Your task to perform on an android device: Go to Wikipedia Image 0: 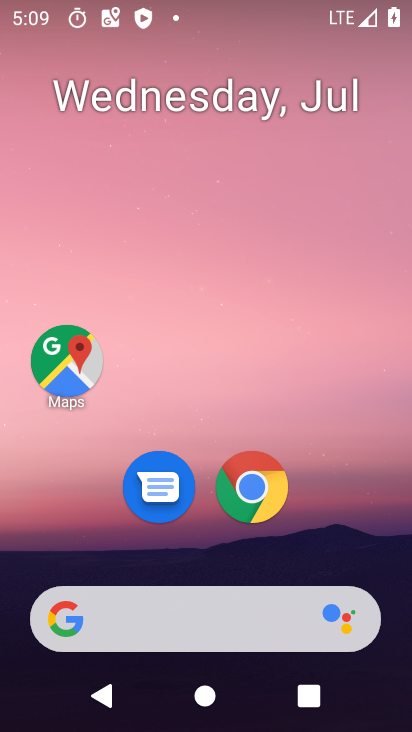
Step 0: click (260, 475)
Your task to perform on an android device: Go to Wikipedia Image 1: 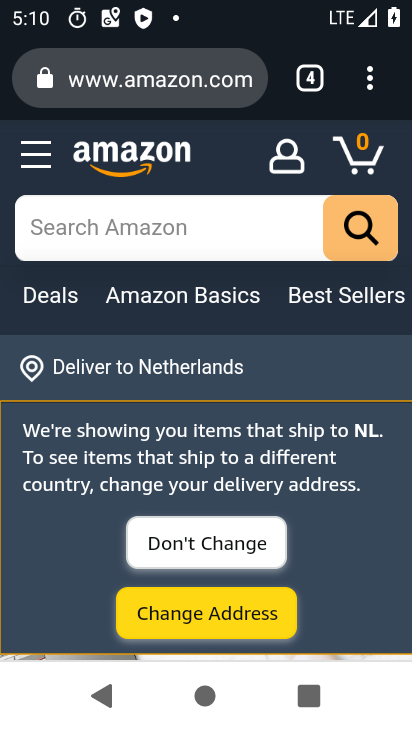
Step 1: click (307, 80)
Your task to perform on an android device: Go to Wikipedia Image 2: 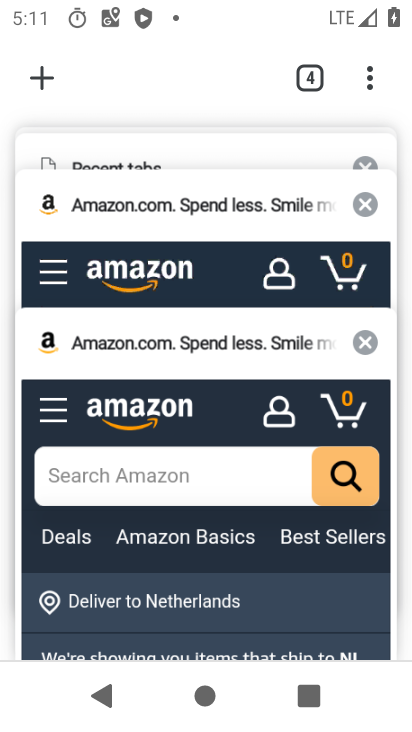
Step 2: click (38, 79)
Your task to perform on an android device: Go to Wikipedia Image 3: 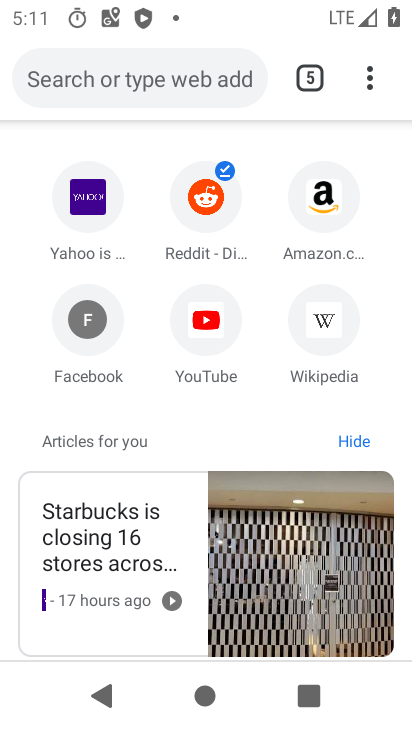
Step 3: click (314, 355)
Your task to perform on an android device: Go to Wikipedia Image 4: 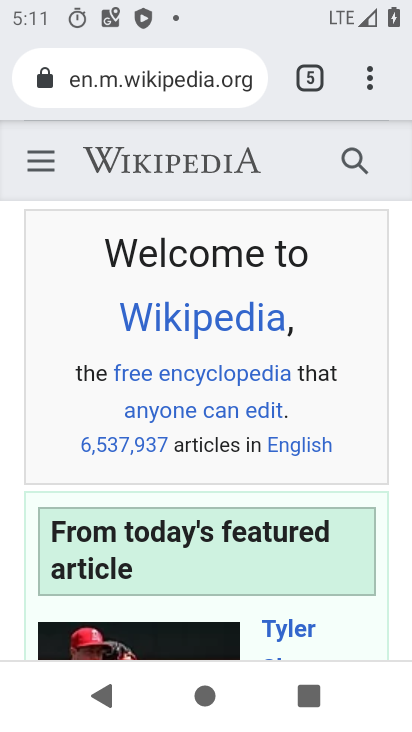
Step 4: task complete